Your task to perform on an android device: turn on sleep mode Image 0: 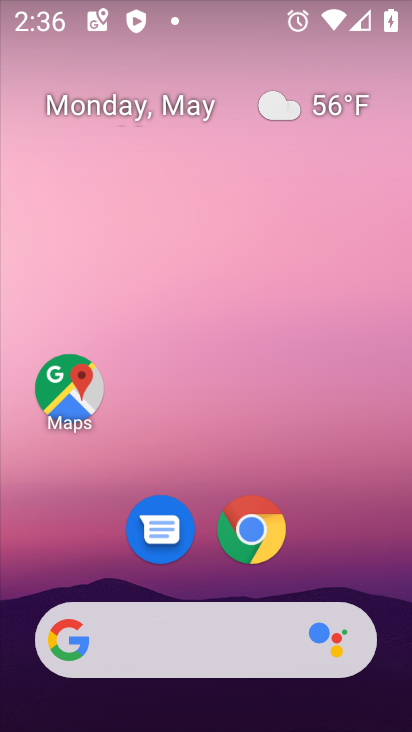
Step 0: drag from (328, 564) to (351, 29)
Your task to perform on an android device: turn on sleep mode Image 1: 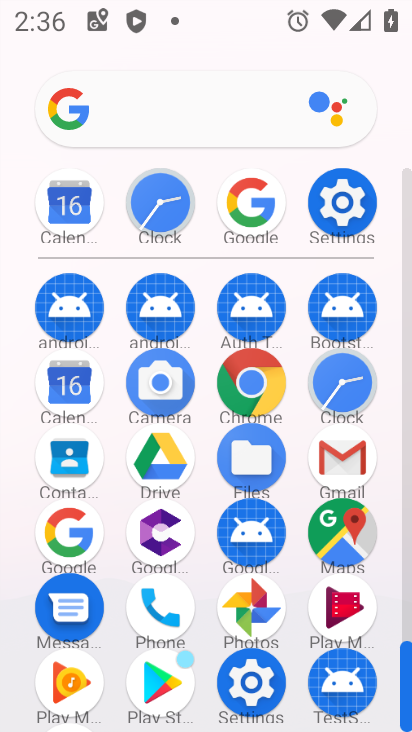
Step 1: click (248, 669)
Your task to perform on an android device: turn on sleep mode Image 2: 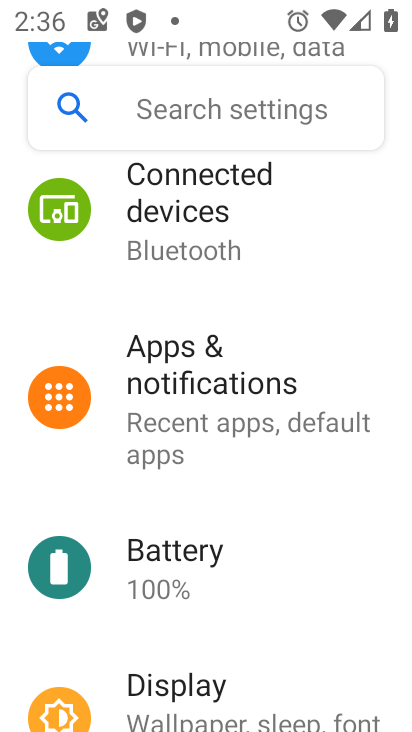
Step 2: click (257, 692)
Your task to perform on an android device: turn on sleep mode Image 3: 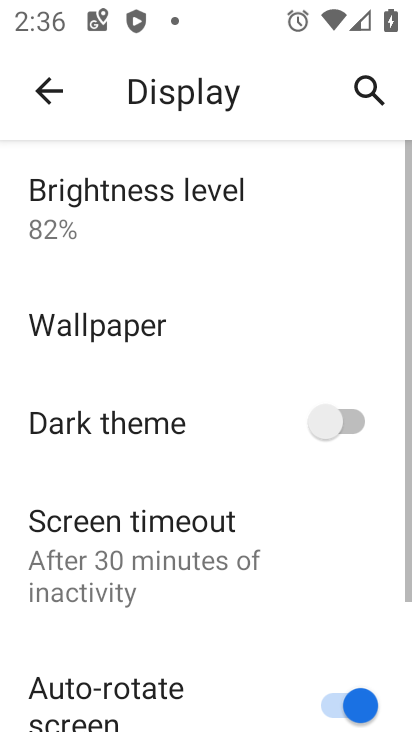
Step 3: drag from (255, 647) to (318, 246)
Your task to perform on an android device: turn on sleep mode Image 4: 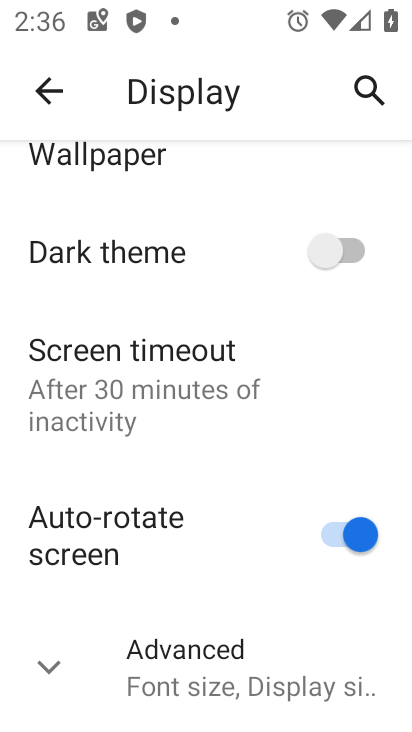
Step 4: click (272, 668)
Your task to perform on an android device: turn on sleep mode Image 5: 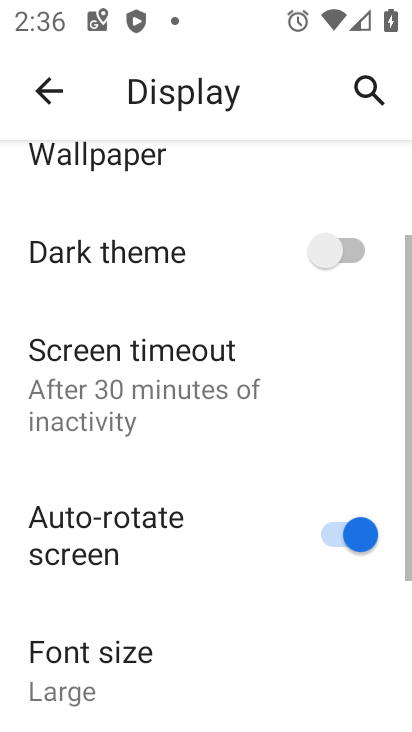
Step 5: drag from (232, 696) to (372, 217)
Your task to perform on an android device: turn on sleep mode Image 6: 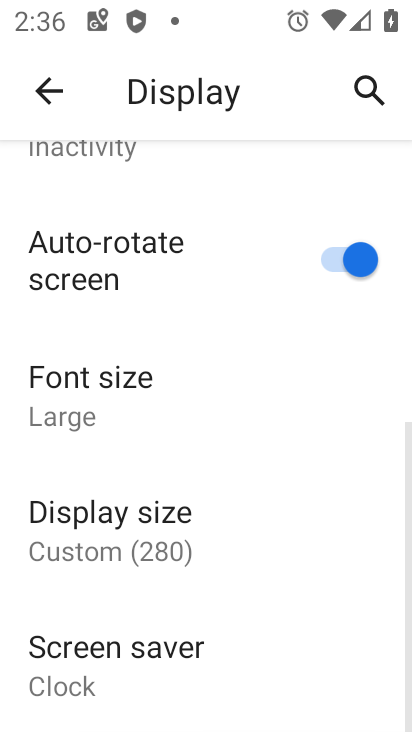
Step 6: drag from (195, 609) to (306, 255)
Your task to perform on an android device: turn on sleep mode Image 7: 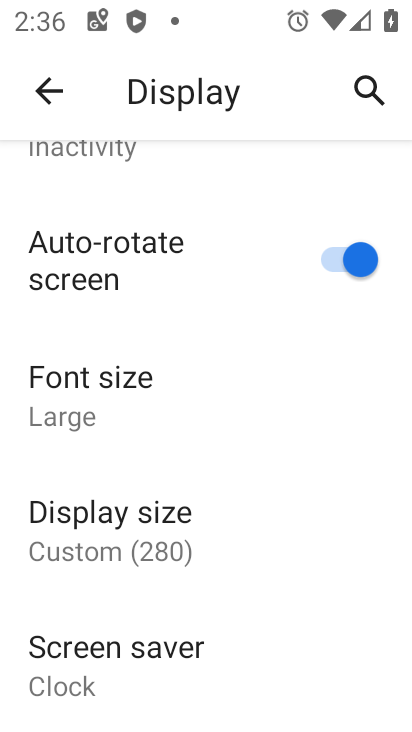
Step 7: click (38, 106)
Your task to perform on an android device: turn on sleep mode Image 8: 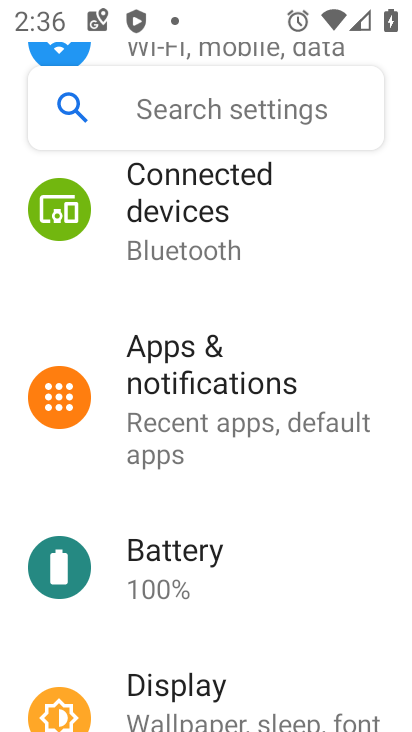
Step 8: task complete